Your task to perform on an android device: What is the recent news? Image 0: 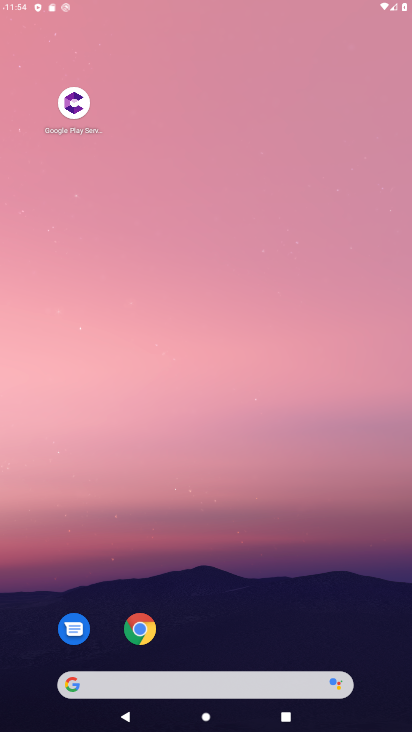
Step 0: click (144, 634)
Your task to perform on an android device: What is the recent news? Image 1: 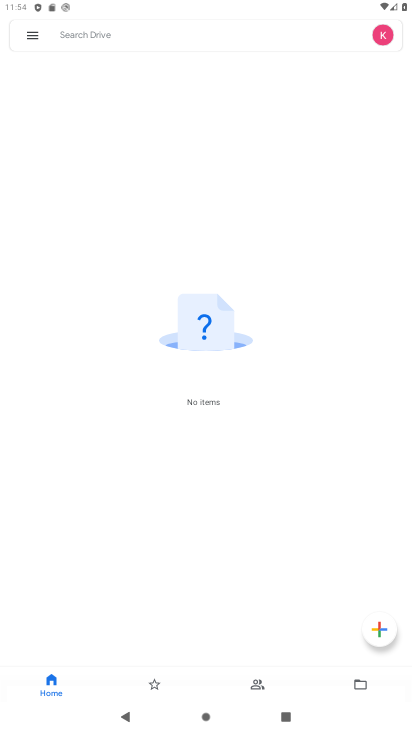
Step 1: press home button
Your task to perform on an android device: What is the recent news? Image 2: 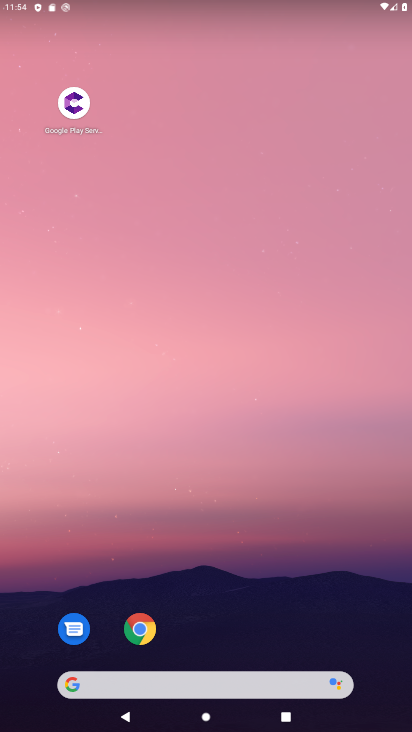
Step 2: click (203, 692)
Your task to perform on an android device: What is the recent news? Image 3: 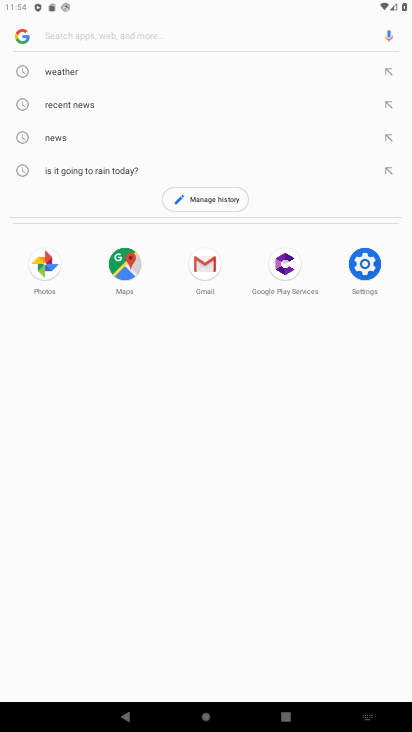
Step 3: click (81, 104)
Your task to perform on an android device: What is the recent news? Image 4: 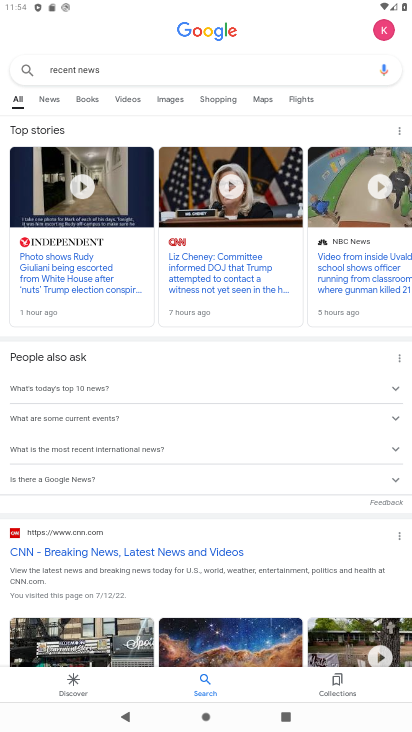
Step 4: task complete